Your task to perform on an android device: Go to notification settings Image 0: 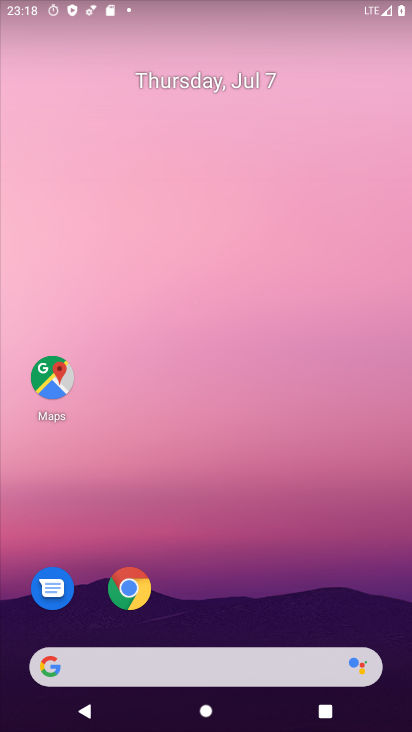
Step 0: drag from (251, 611) to (259, 94)
Your task to perform on an android device: Go to notification settings Image 1: 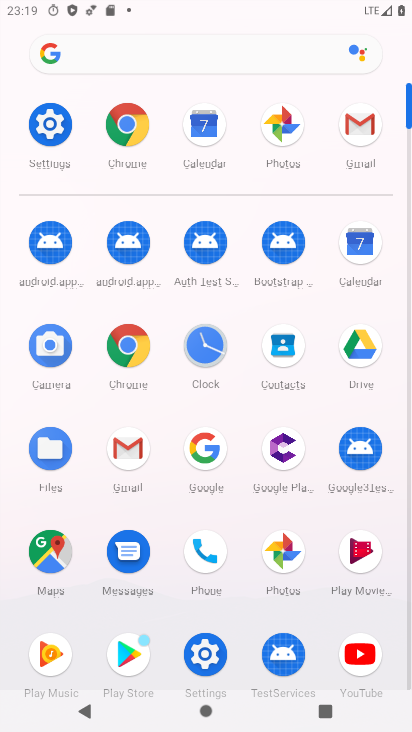
Step 1: click (57, 118)
Your task to perform on an android device: Go to notification settings Image 2: 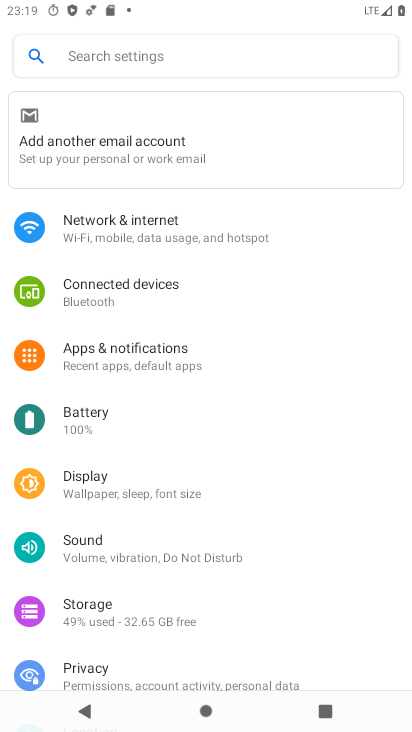
Step 2: click (150, 352)
Your task to perform on an android device: Go to notification settings Image 3: 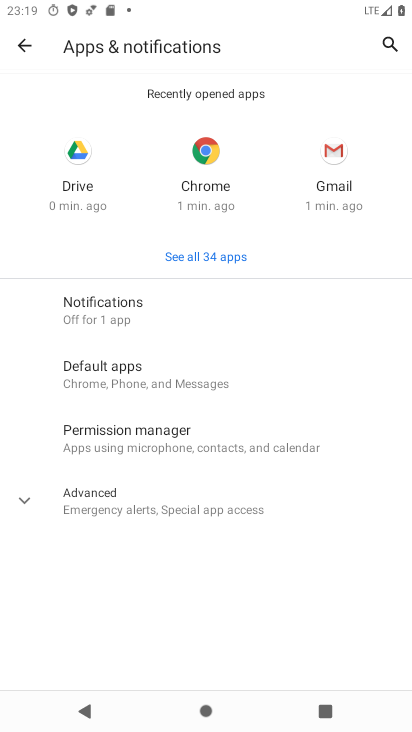
Step 3: click (102, 308)
Your task to perform on an android device: Go to notification settings Image 4: 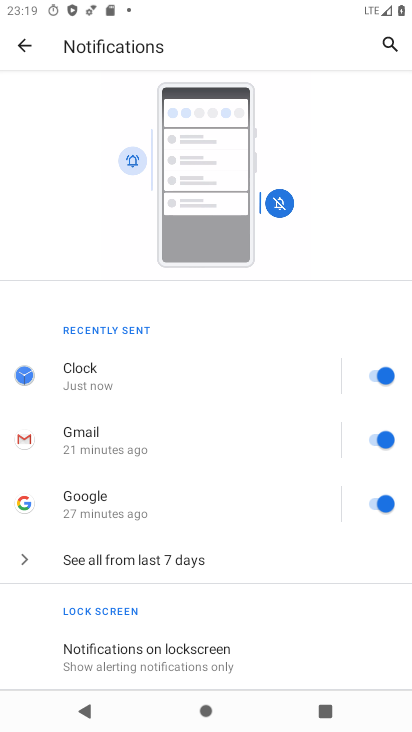
Step 4: task complete